Your task to perform on an android device: Open privacy settings Image 0: 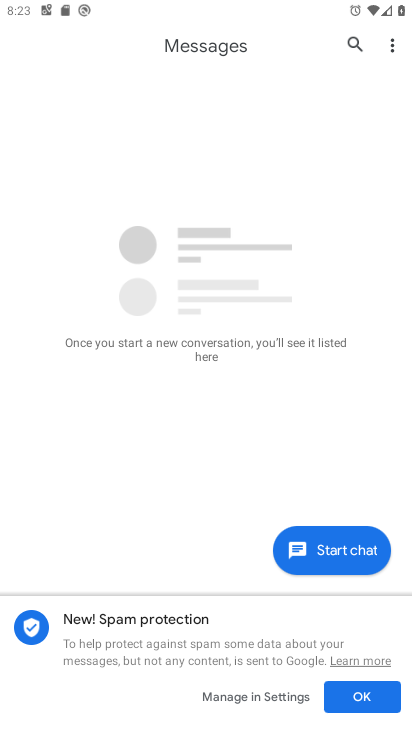
Step 0: press home button
Your task to perform on an android device: Open privacy settings Image 1: 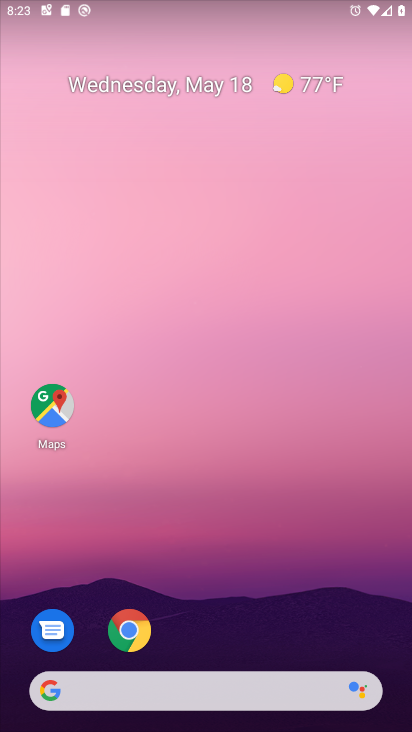
Step 1: drag from (260, 609) to (277, 166)
Your task to perform on an android device: Open privacy settings Image 2: 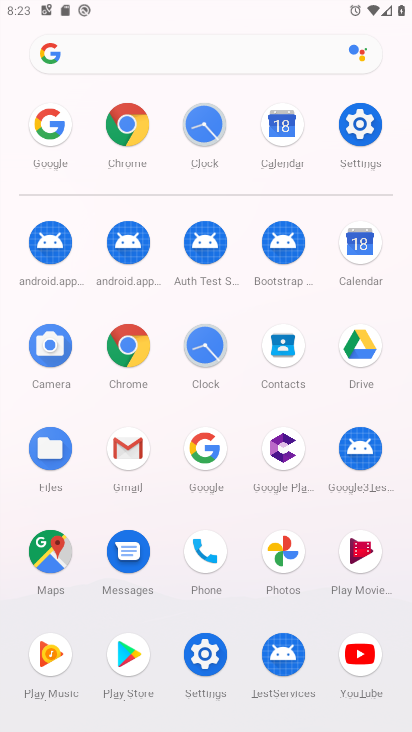
Step 2: click (202, 659)
Your task to perform on an android device: Open privacy settings Image 3: 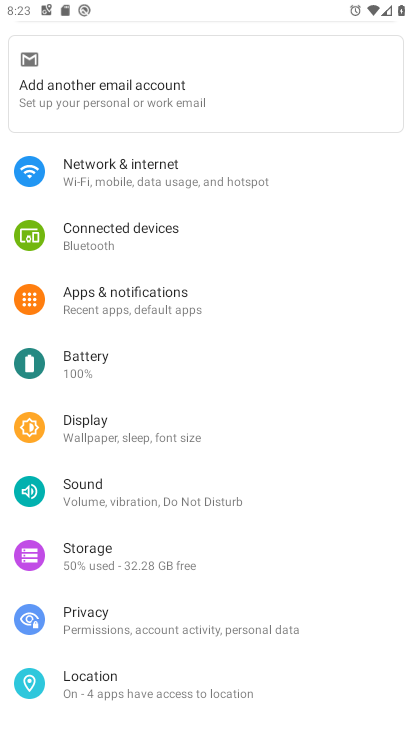
Step 3: click (98, 629)
Your task to perform on an android device: Open privacy settings Image 4: 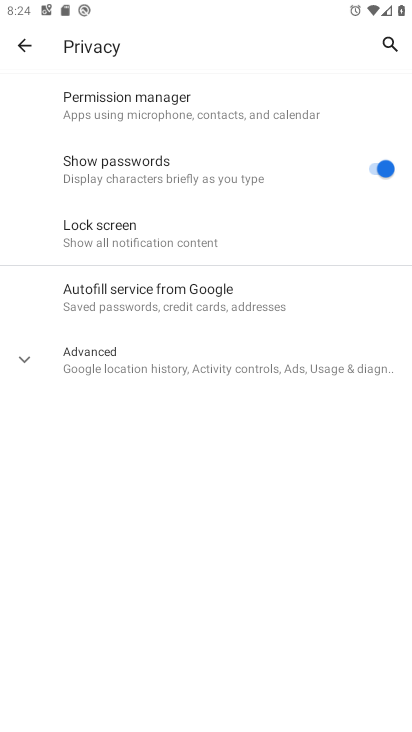
Step 4: task complete